Your task to perform on an android device: Open internet settings Image 0: 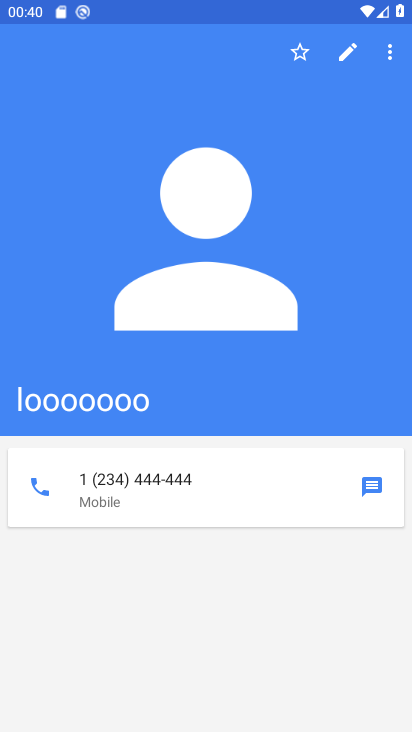
Step 0: press home button
Your task to perform on an android device: Open internet settings Image 1: 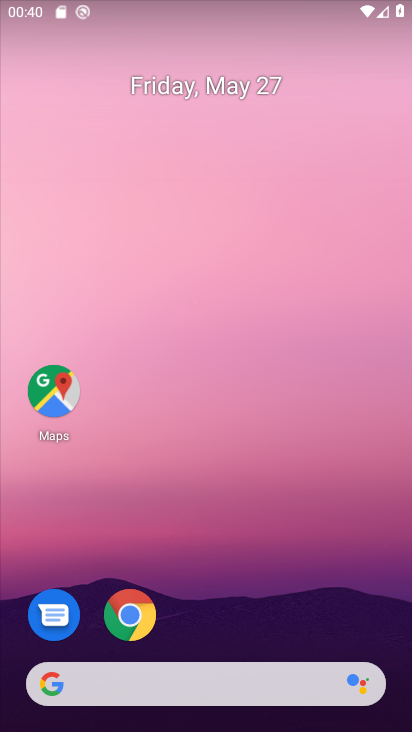
Step 1: drag from (332, 614) to (326, 217)
Your task to perform on an android device: Open internet settings Image 2: 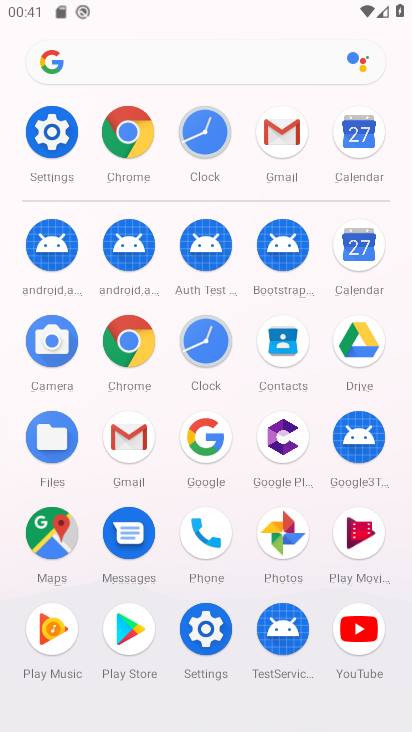
Step 2: click (216, 646)
Your task to perform on an android device: Open internet settings Image 3: 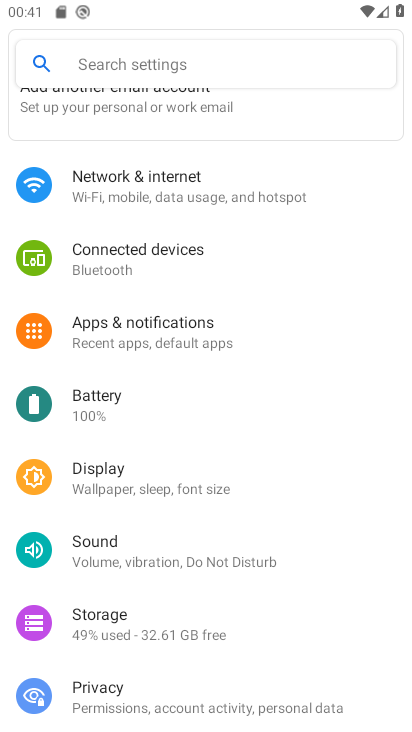
Step 3: drag from (329, 508) to (329, 447)
Your task to perform on an android device: Open internet settings Image 4: 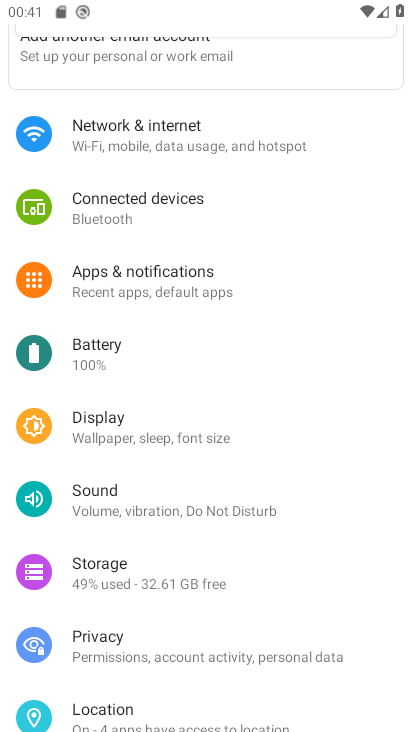
Step 4: drag from (341, 543) to (340, 438)
Your task to perform on an android device: Open internet settings Image 5: 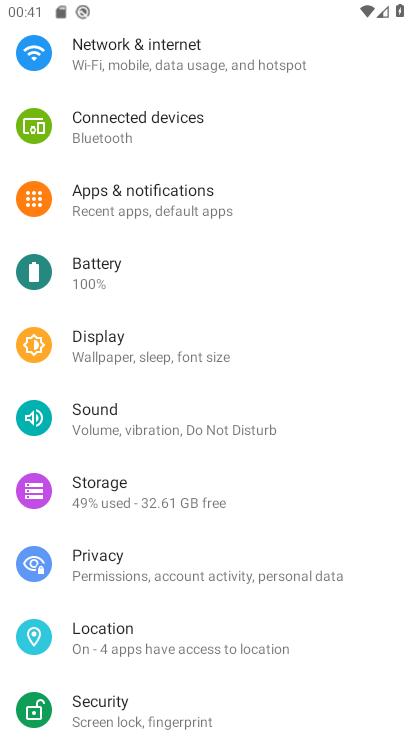
Step 5: drag from (362, 531) to (363, 456)
Your task to perform on an android device: Open internet settings Image 6: 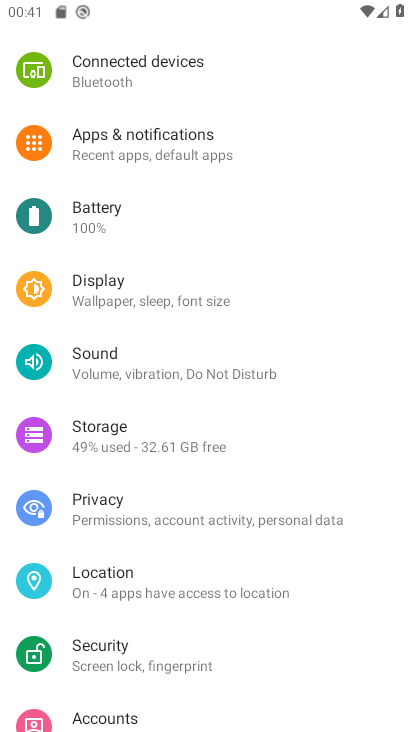
Step 6: drag from (357, 568) to (356, 454)
Your task to perform on an android device: Open internet settings Image 7: 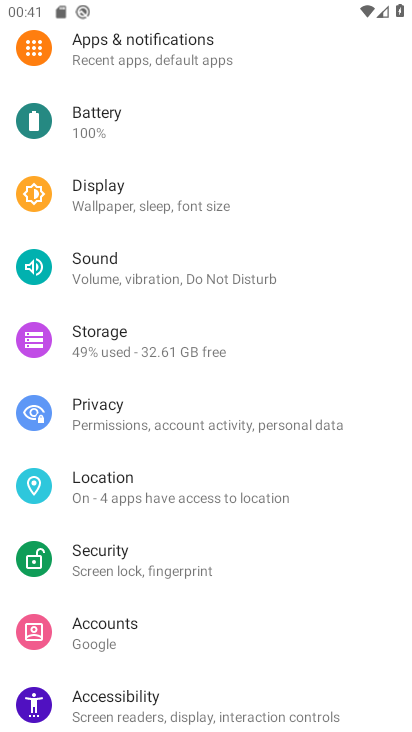
Step 7: drag from (342, 561) to (342, 478)
Your task to perform on an android device: Open internet settings Image 8: 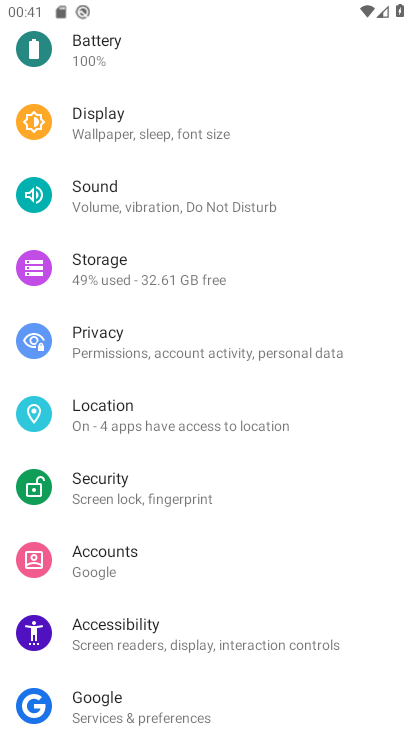
Step 8: drag from (335, 547) to (334, 463)
Your task to perform on an android device: Open internet settings Image 9: 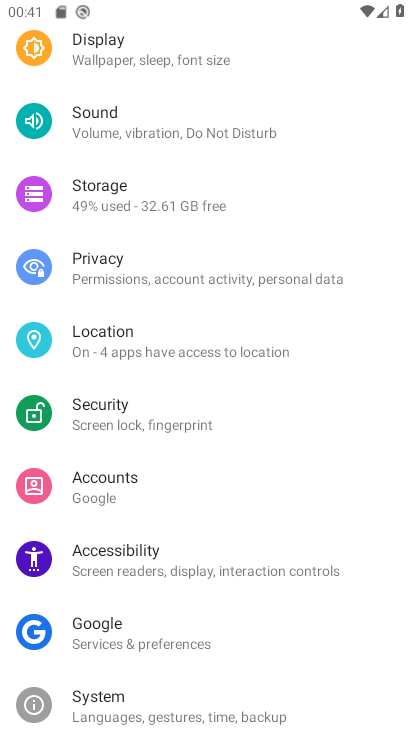
Step 9: drag from (334, 543) to (340, 478)
Your task to perform on an android device: Open internet settings Image 10: 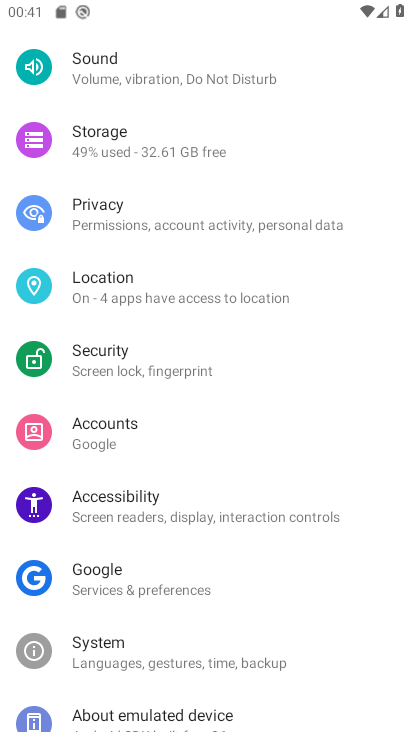
Step 10: drag from (336, 557) to (336, 446)
Your task to perform on an android device: Open internet settings Image 11: 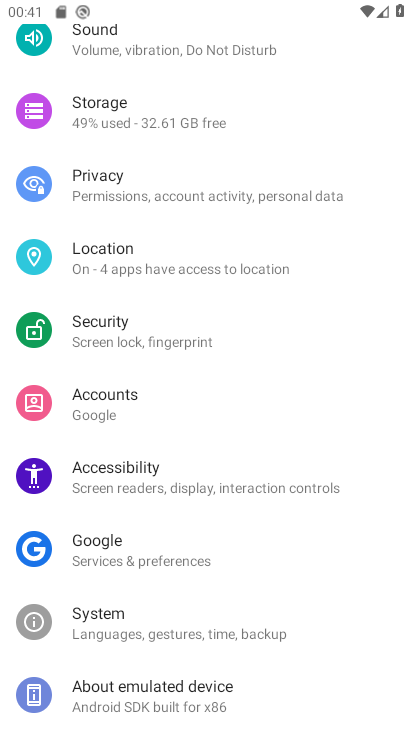
Step 11: drag from (345, 271) to (345, 363)
Your task to perform on an android device: Open internet settings Image 12: 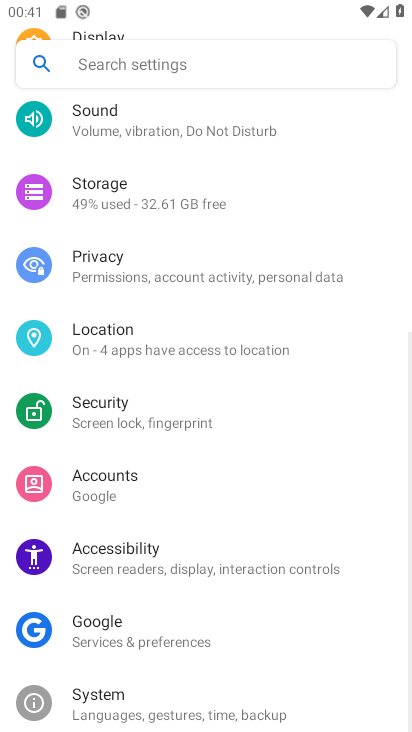
Step 12: drag from (345, 231) to (345, 332)
Your task to perform on an android device: Open internet settings Image 13: 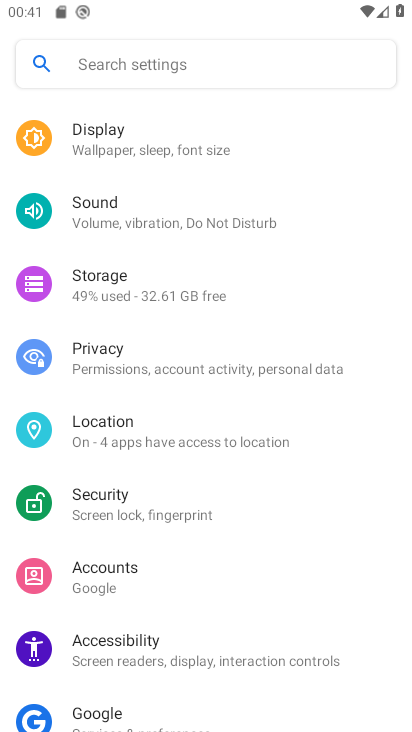
Step 13: drag from (346, 202) to (346, 305)
Your task to perform on an android device: Open internet settings Image 14: 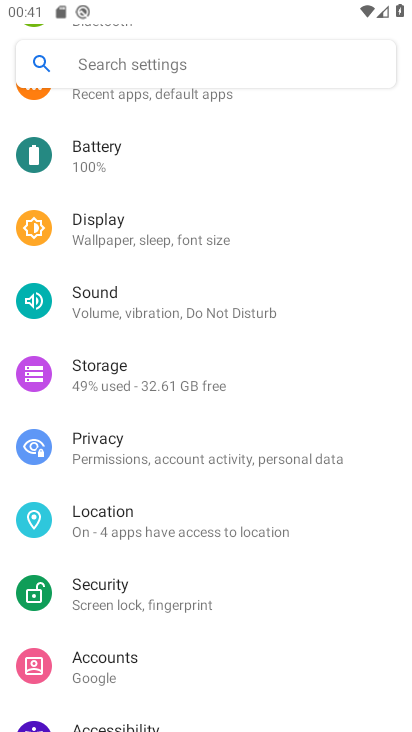
Step 14: drag from (338, 174) to (335, 289)
Your task to perform on an android device: Open internet settings Image 15: 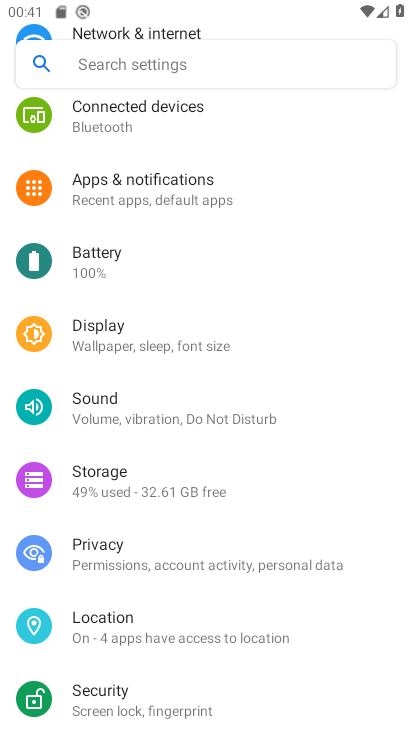
Step 15: drag from (325, 193) to (321, 342)
Your task to perform on an android device: Open internet settings Image 16: 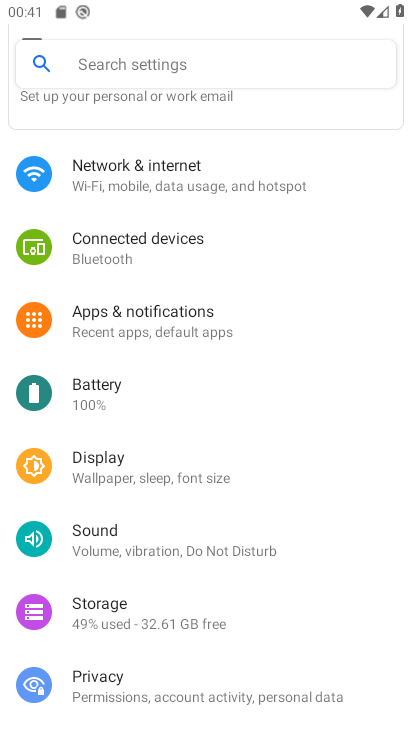
Step 16: click (294, 170)
Your task to perform on an android device: Open internet settings Image 17: 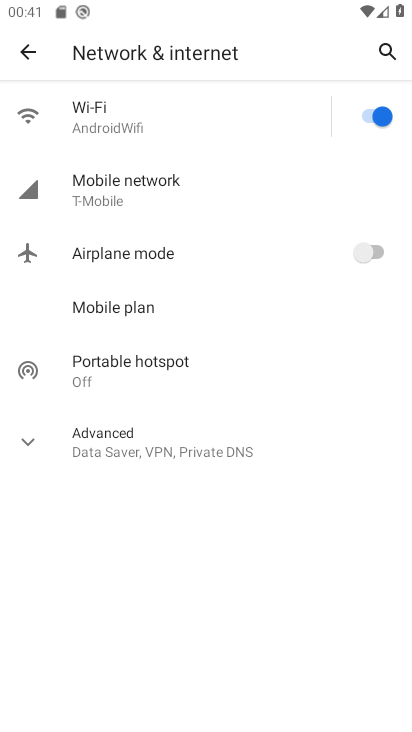
Step 17: task complete